Your task to perform on an android device: Go to calendar. Show me events next week Image 0: 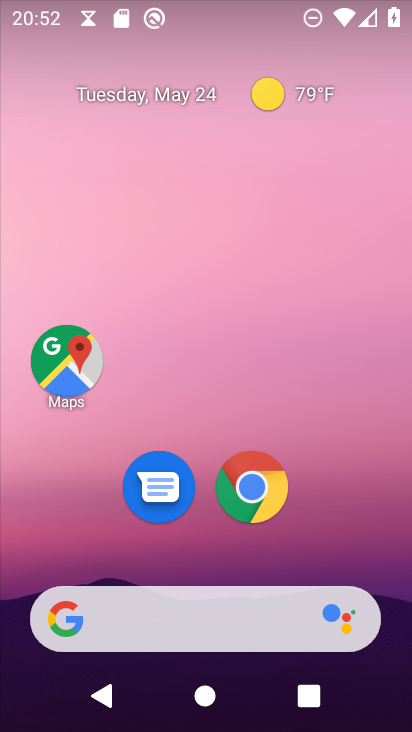
Step 0: drag from (81, 446) to (284, 73)
Your task to perform on an android device: Go to calendar. Show me events next week Image 1: 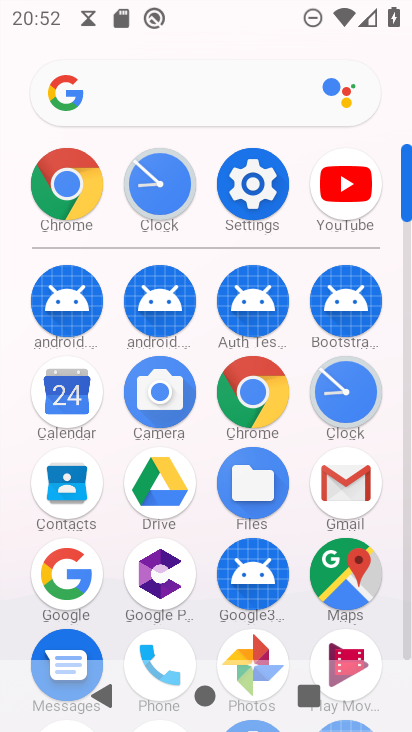
Step 1: click (55, 417)
Your task to perform on an android device: Go to calendar. Show me events next week Image 2: 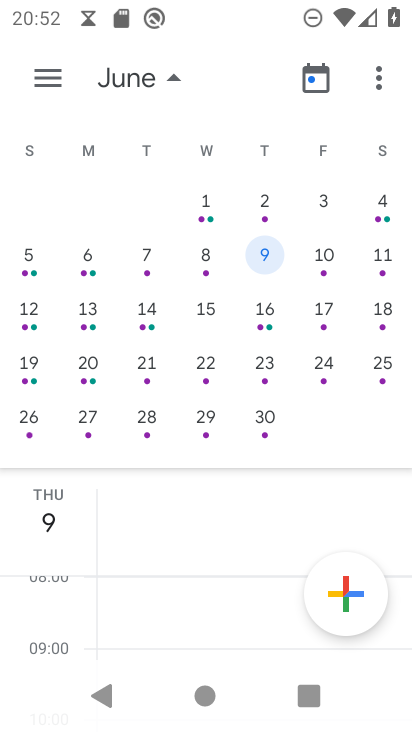
Step 2: drag from (68, 356) to (6, 576)
Your task to perform on an android device: Go to calendar. Show me events next week Image 3: 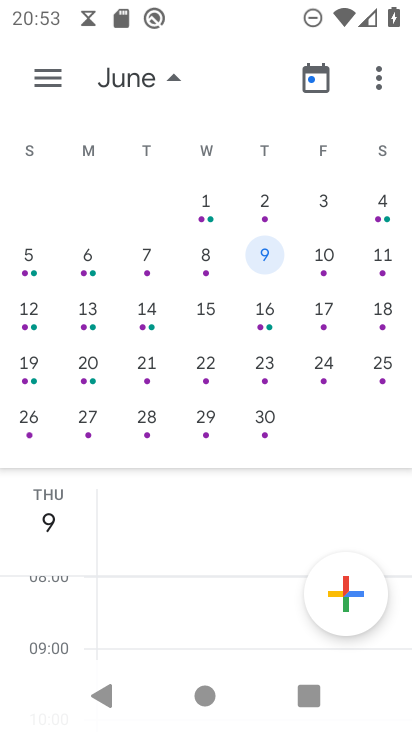
Step 3: drag from (77, 354) to (400, 129)
Your task to perform on an android device: Go to calendar. Show me events next week Image 4: 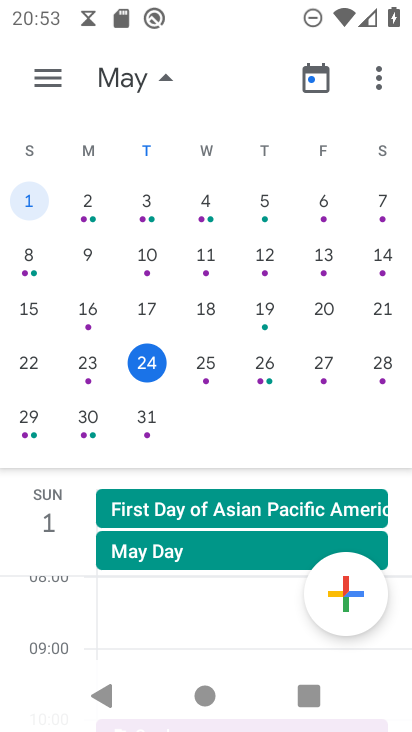
Step 4: click (81, 422)
Your task to perform on an android device: Go to calendar. Show me events next week Image 5: 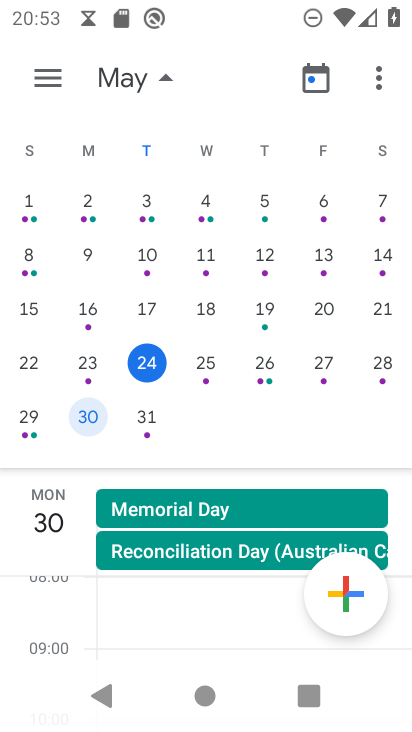
Step 5: click (134, 428)
Your task to perform on an android device: Go to calendar. Show me events next week Image 6: 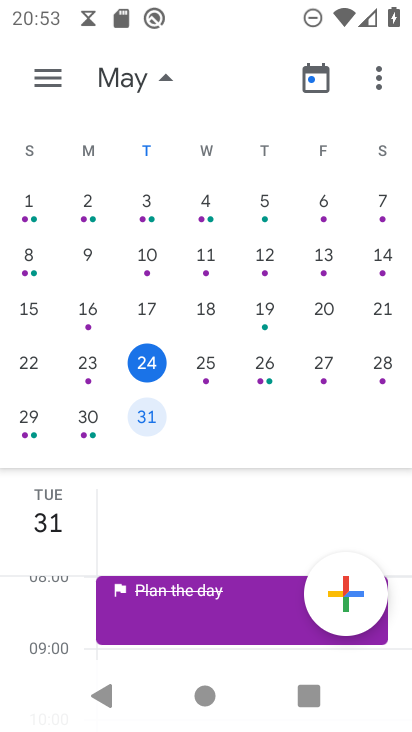
Step 6: task complete